Your task to perform on an android device: Is it going to rain tomorrow? Image 0: 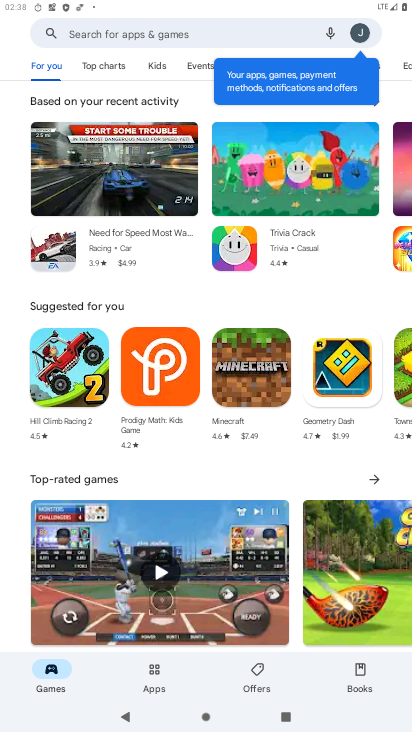
Step 0: press home button
Your task to perform on an android device: Is it going to rain tomorrow? Image 1: 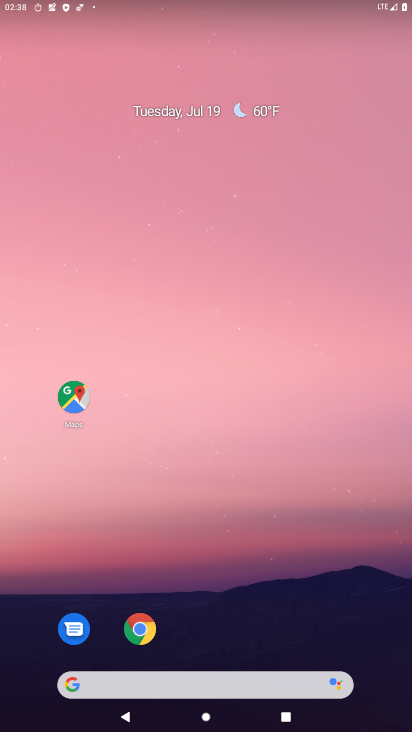
Step 1: drag from (189, 628) to (251, 129)
Your task to perform on an android device: Is it going to rain tomorrow? Image 2: 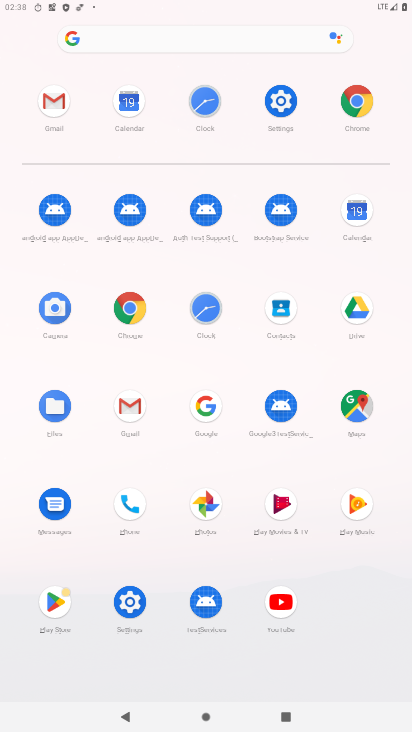
Step 2: click (203, 402)
Your task to perform on an android device: Is it going to rain tomorrow? Image 3: 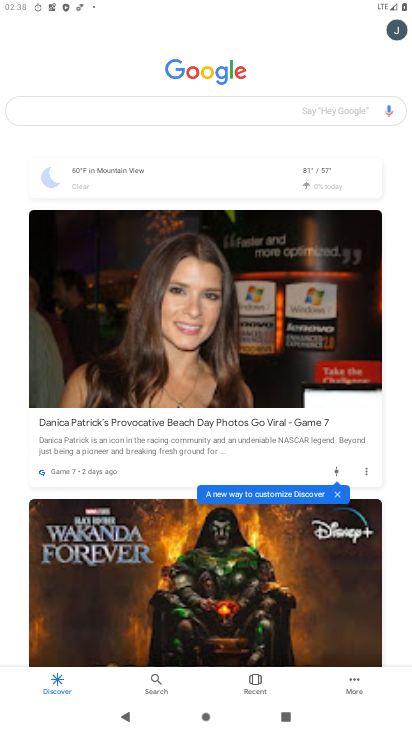
Step 3: click (173, 109)
Your task to perform on an android device: Is it going to rain tomorrow? Image 4: 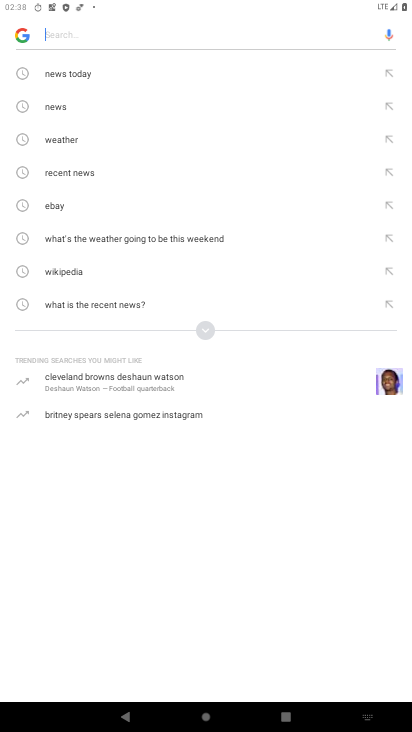
Step 4: click (79, 148)
Your task to perform on an android device: Is it going to rain tomorrow? Image 5: 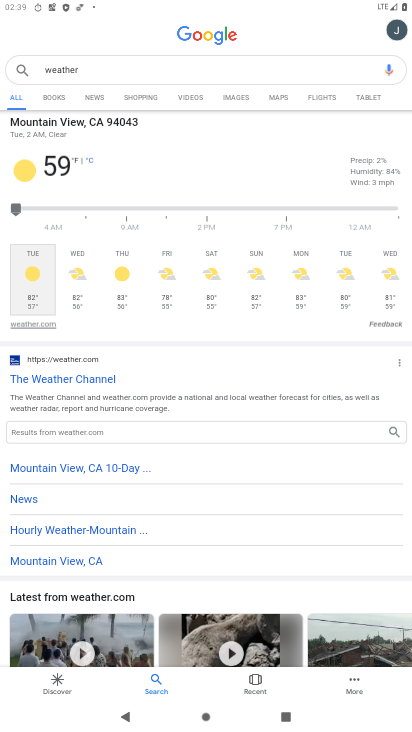
Step 5: task complete